Your task to perform on an android device: set an alarm Image 0: 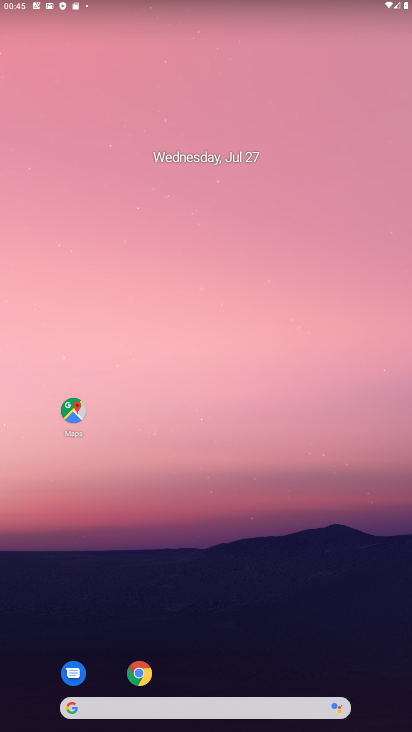
Step 0: drag from (229, 685) to (123, 104)
Your task to perform on an android device: set an alarm Image 1: 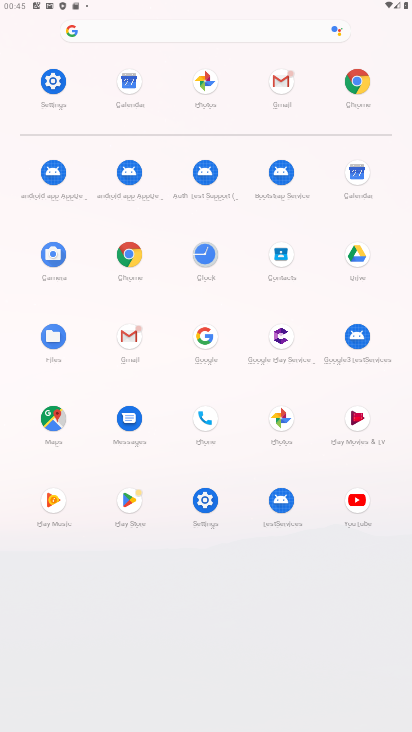
Step 1: click (200, 245)
Your task to perform on an android device: set an alarm Image 2: 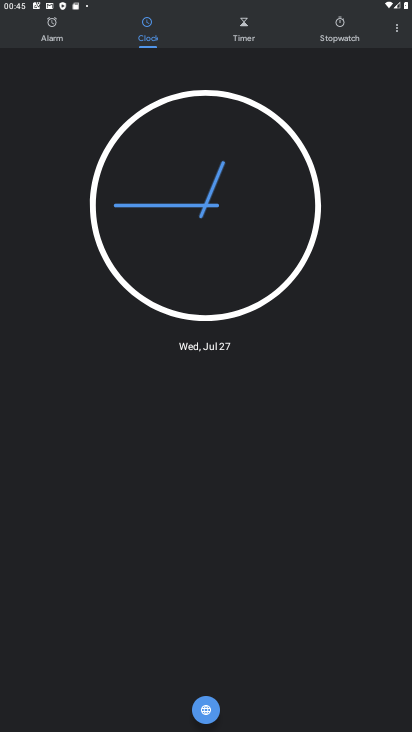
Step 2: click (54, 41)
Your task to perform on an android device: set an alarm Image 3: 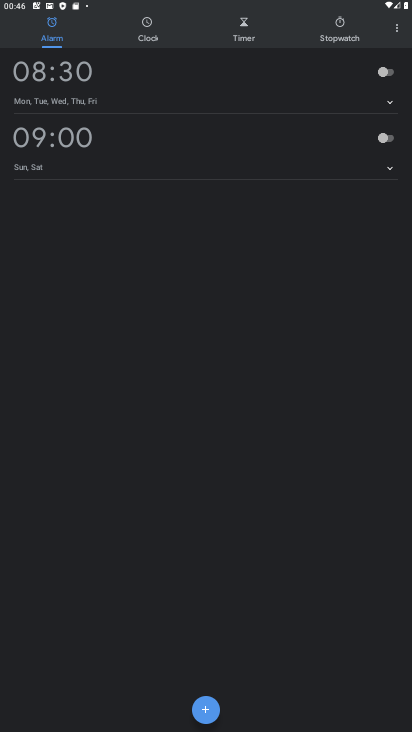
Step 3: task complete